Your task to perform on an android device: turn off priority inbox in the gmail app Image 0: 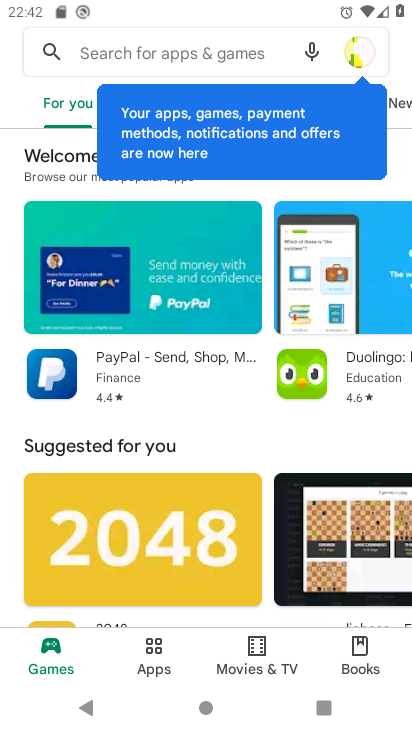
Step 0: drag from (228, 472) to (324, 155)
Your task to perform on an android device: turn off priority inbox in the gmail app Image 1: 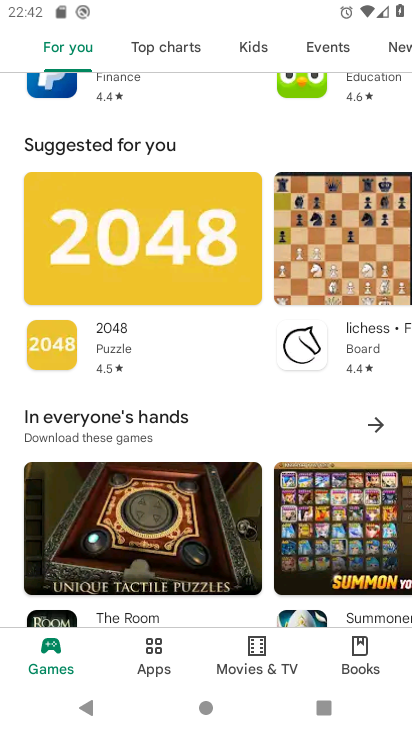
Step 1: press home button
Your task to perform on an android device: turn off priority inbox in the gmail app Image 2: 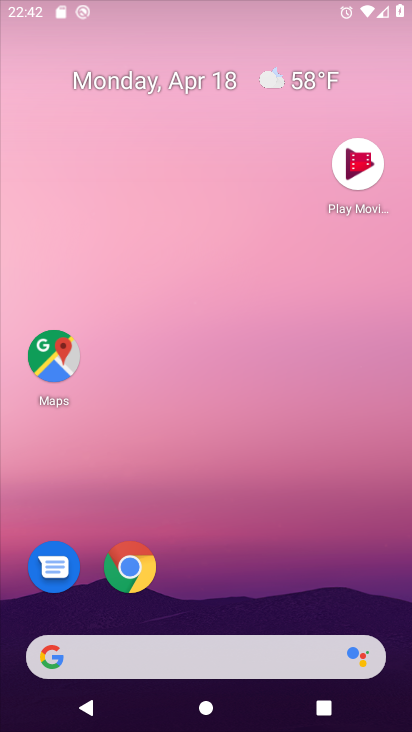
Step 2: drag from (224, 579) to (345, 130)
Your task to perform on an android device: turn off priority inbox in the gmail app Image 3: 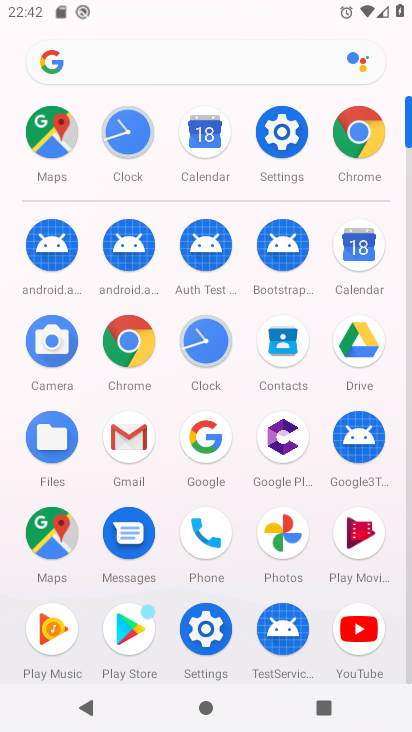
Step 3: click (123, 431)
Your task to perform on an android device: turn off priority inbox in the gmail app Image 4: 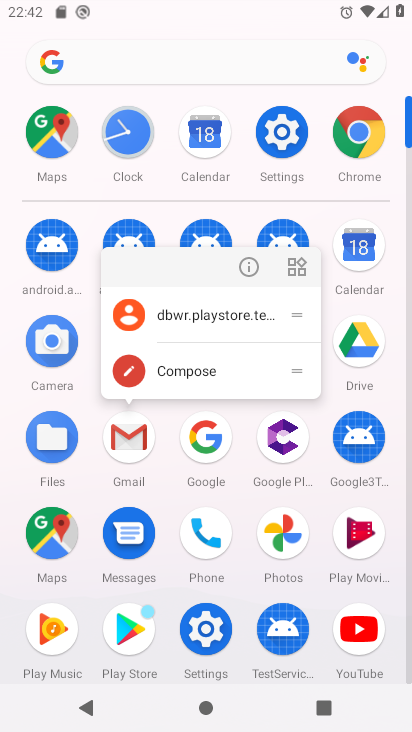
Step 4: click (248, 260)
Your task to perform on an android device: turn off priority inbox in the gmail app Image 5: 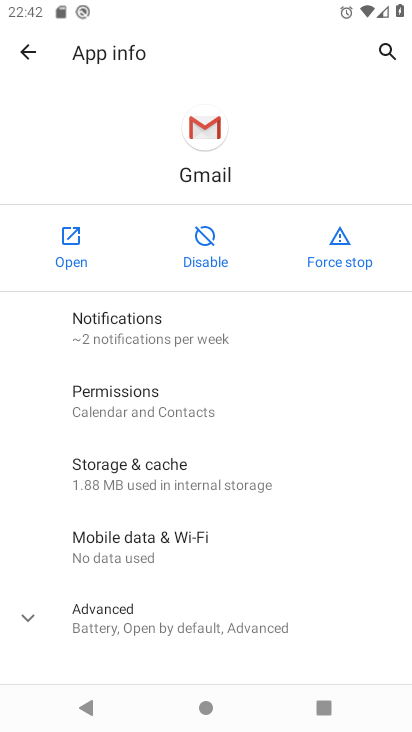
Step 5: click (77, 255)
Your task to perform on an android device: turn off priority inbox in the gmail app Image 6: 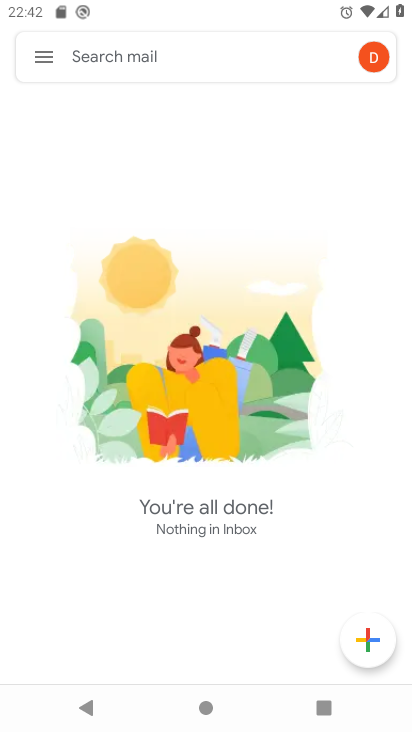
Step 6: click (28, 67)
Your task to perform on an android device: turn off priority inbox in the gmail app Image 7: 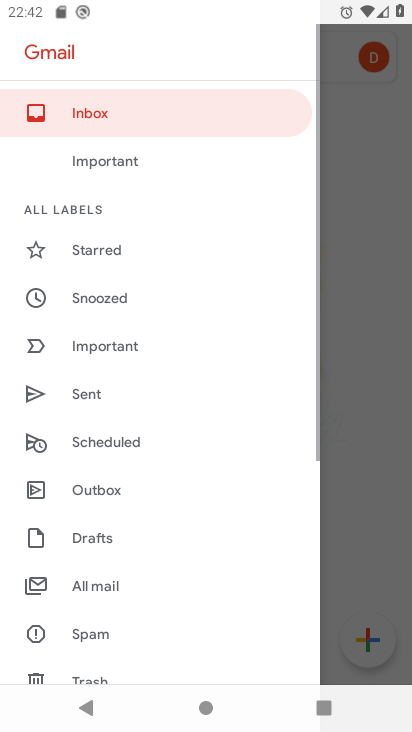
Step 7: drag from (151, 531) to (174, 198)
Your task to perform on an android device: turn off priority inbox in the gmail app Image 8: 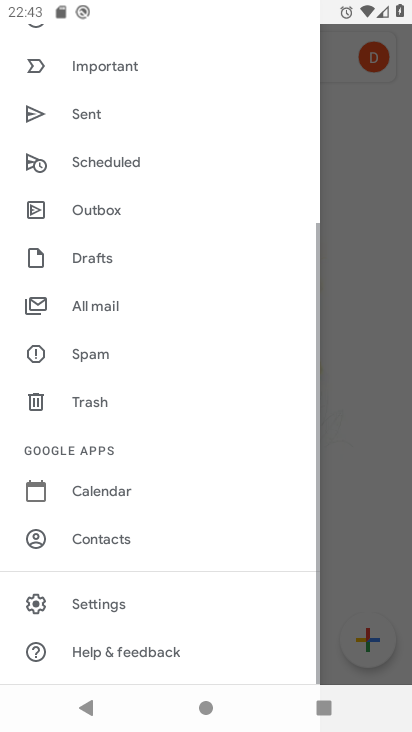
Step 8: click (125, 609)
Your task to perform on an android device: turn off priority inbox in the gmail app Image 9: 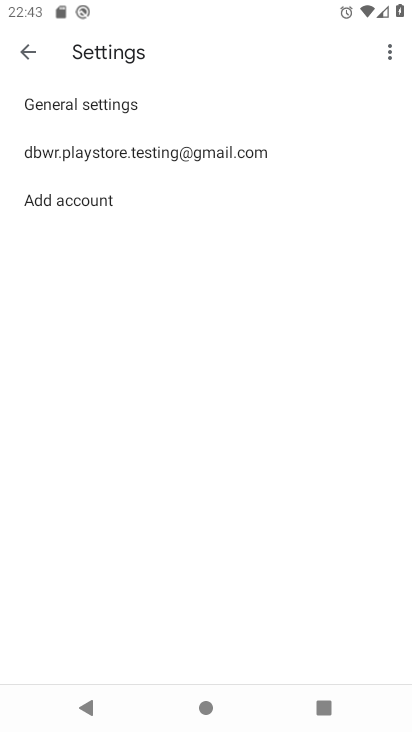
Step 9: click (167, 158)
Your task to perform on an android device: turn off priority inbox in the gmail app Image 10: 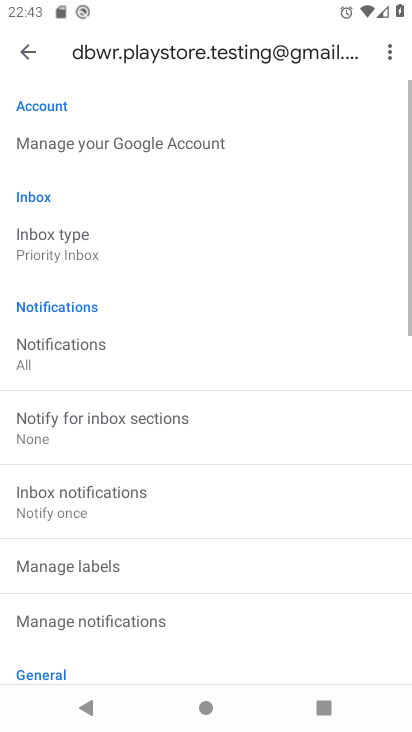
Step 10: click (103, 248)
Your task to perform on an android device: turn off priority inbox in the gmail app Image 11: 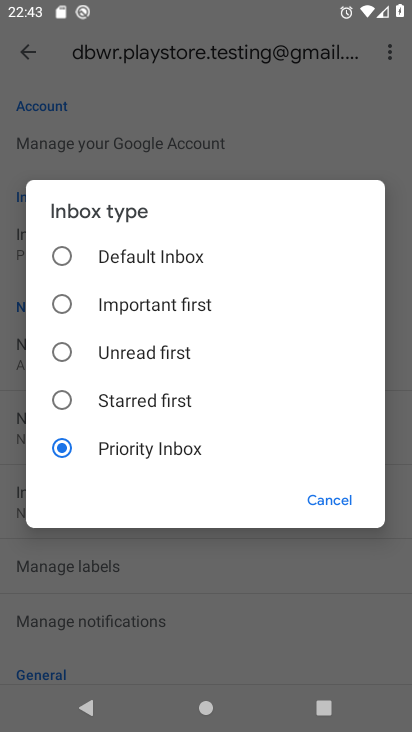
Step 11: click (67, 307)
Your task to perform on an android device: turn off priority inbox in the gmail app Image 12: 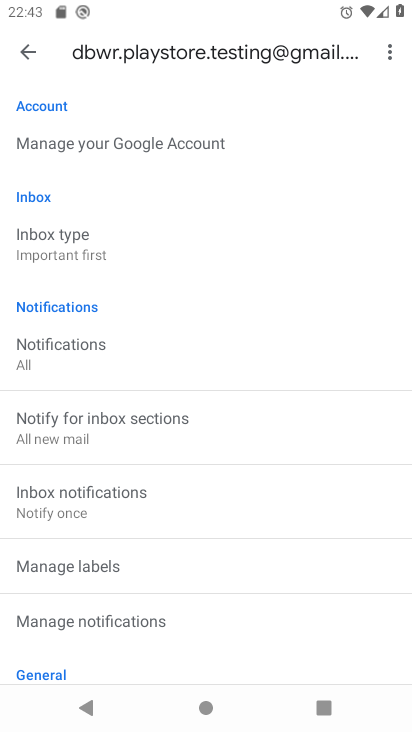
Step 12: drag from (183, 547) to (283, 109)
Your task to perform on an android device: turn off priority inbox in the gmail app Image 13: 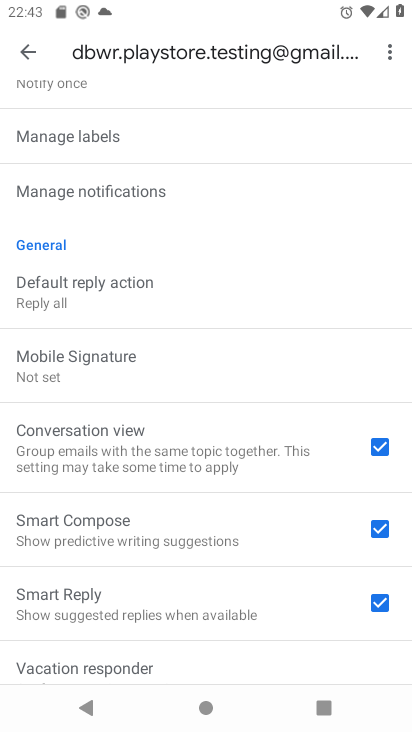
Step 13: drag from (174, 541) to (310, 10)
Your task to perform on an android device: turn off priority inbox in the gmail app Image 14: 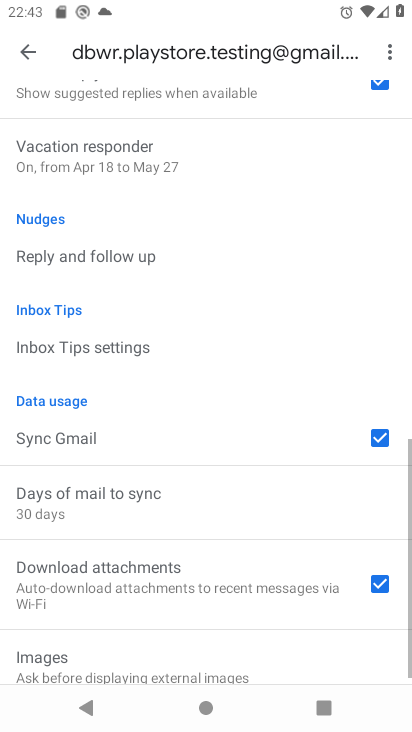
Step 14: drag from (156, 257) to (251, 727)
Your task to perform on an android device: turn off priority inbox in the gmail app Image 15: 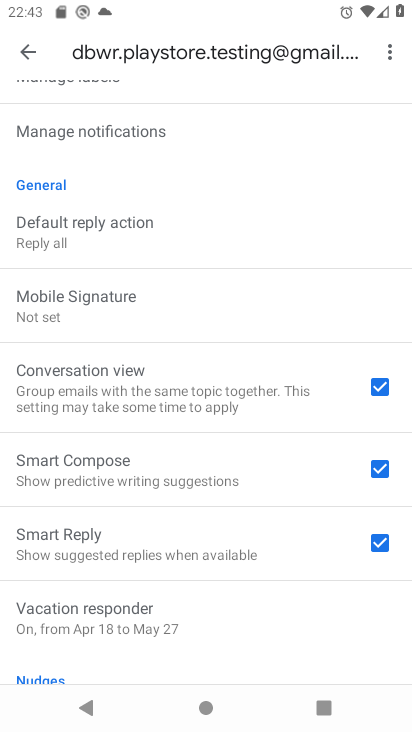
Step 15: drag from (183, 217) to (216, 576)
Your task to perform on an android device: turn off priority inbox in the gmail app Image 16: 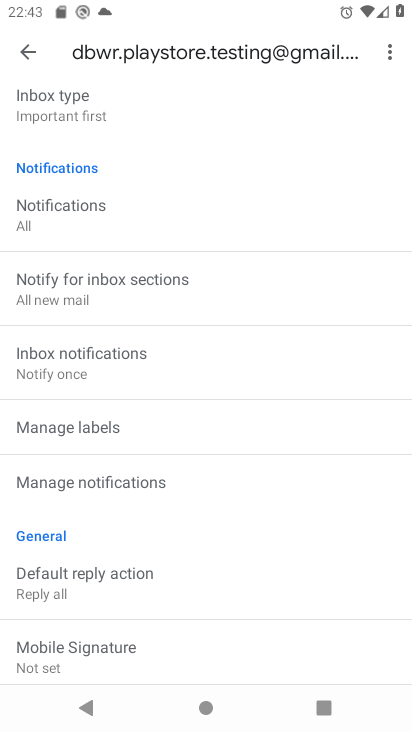
Step 16: drag from (154, 246) to (294, 672)
Your task to perform on an android device: turn off priority inbox in the gmail app Image 17: 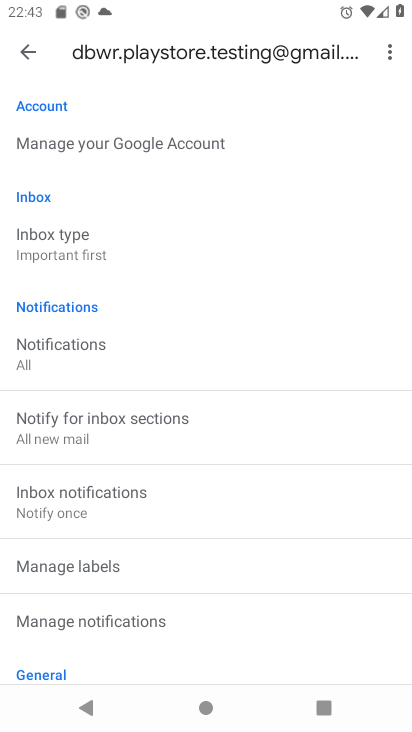
Step 17: drag from (215, 568) to (224, 211)
Your task to perform on an android device: turn off priority inbox in the gmail app Image 18: 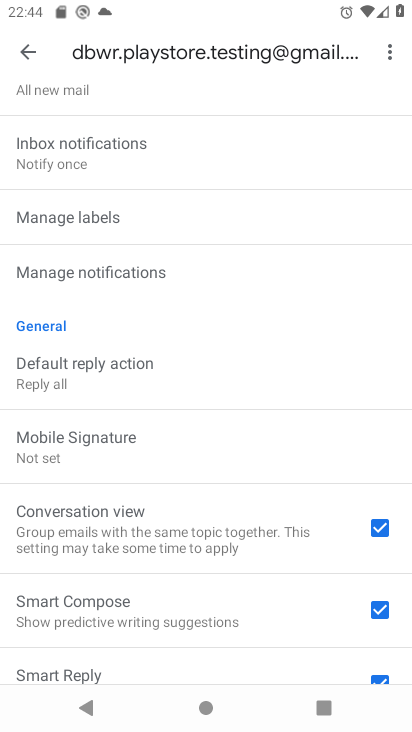
Step 18: drag from (213, 204) to (240, 543)
Your task to perform on an android device: turn off priority inbox in the gmail app Image 19: 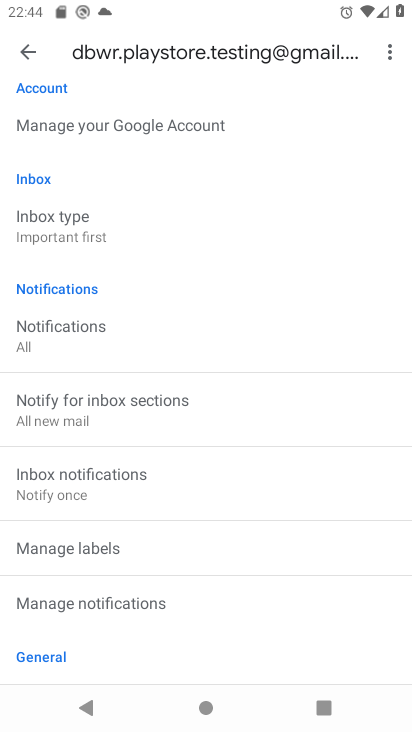
Step 19: drag from (201, 568) to (227, 371)
Your task to perform on an android device: turn off priority inbox in the gmail app Image 20: 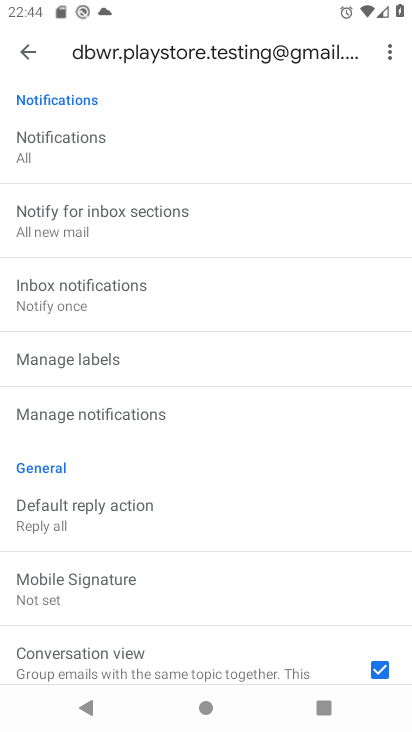
Step 20: drag from (229, 368) to (220, 492)
Your task to perform on an android device: turn off priority inbox in the gmail app Image 21: 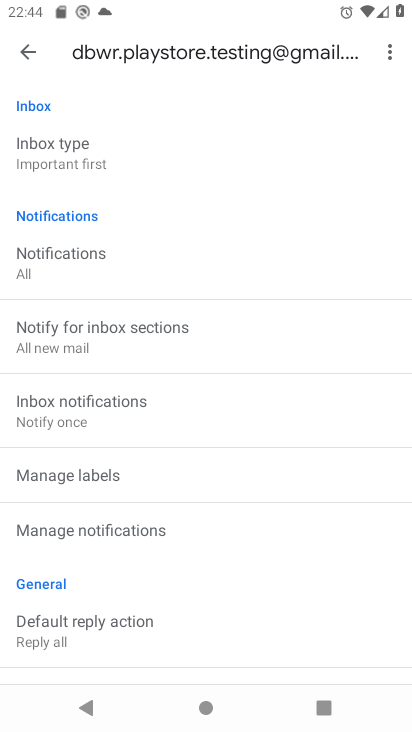
Step 21: drag from (197, 144) to (177, 510)
Your task to perform on an android device: turn off priority inbox in the gmail app Image 22: 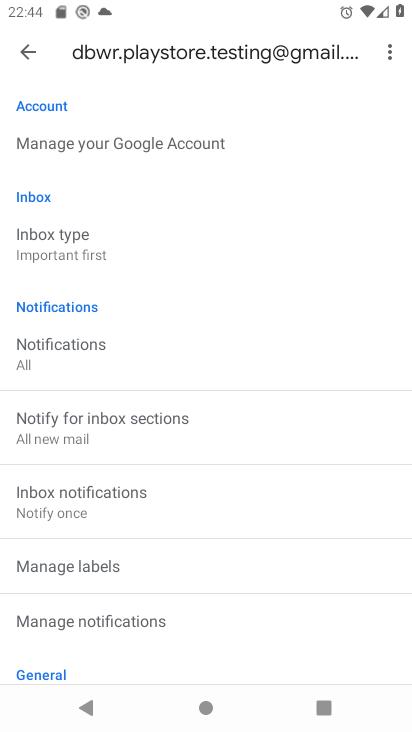
Step 22: click (140, 231)
Your task to perform on an android device: turn off priority inbox in the gmail app Image 23: 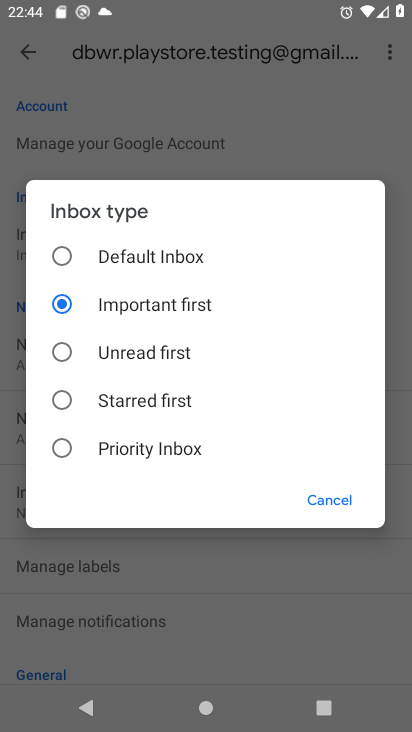
Step 23: task complete